Your task to perform on an android device: change the clock display to show seconds Image 0: 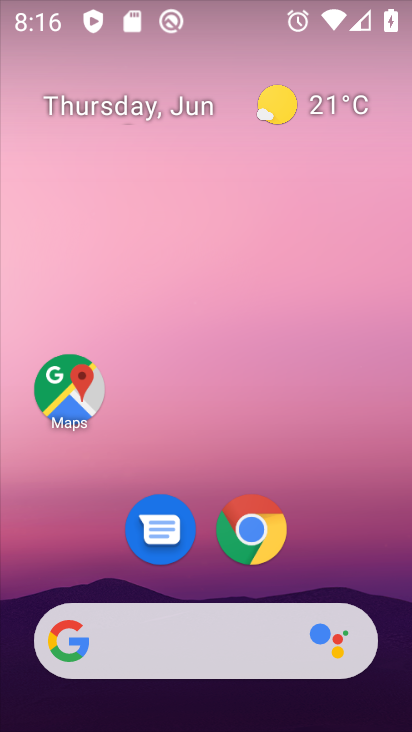
Step 0: click (332, 532)
Your task to perform on an android device: change the clock display to show seconds Image 1: 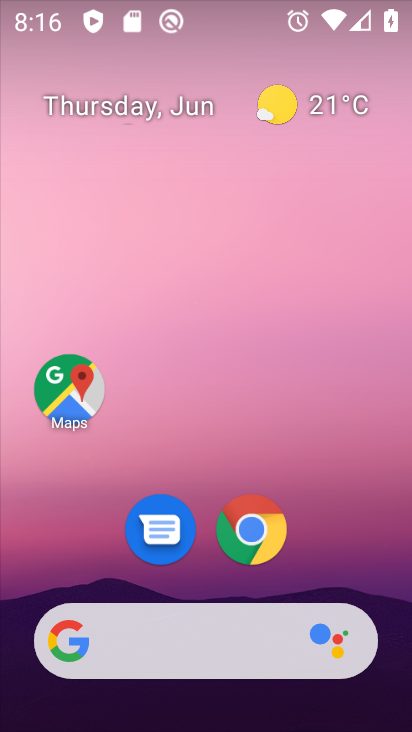
Step 1: drag from (398, 725) to (390, 241)
Your task to perform on an android device: change the clock display to show seconds Image 2: 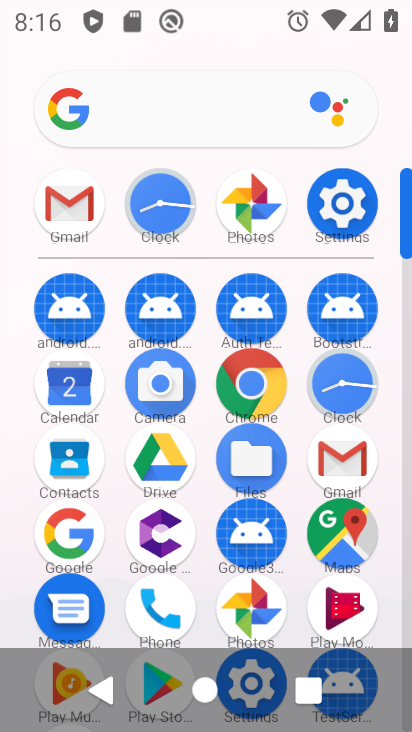
Step 2: click (356, 390)
Your task to perform on an android device: change the clock display to show seconds Image 3: 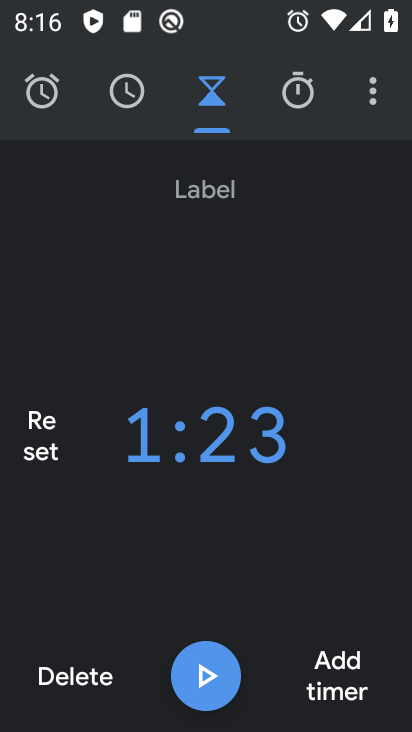
Step 3: click (371, 95)
Your task to perform on an android device: change the clock display to show seconds Image 4: 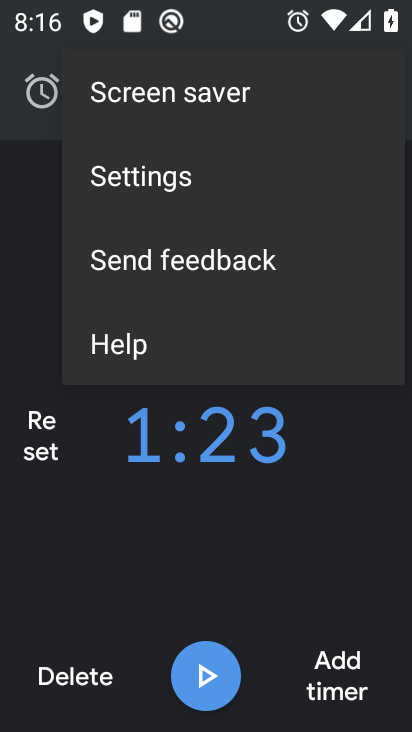
Step 4: click (143, 180)
Your task to perform on an android device: change the clock display to show seconds Image 5: 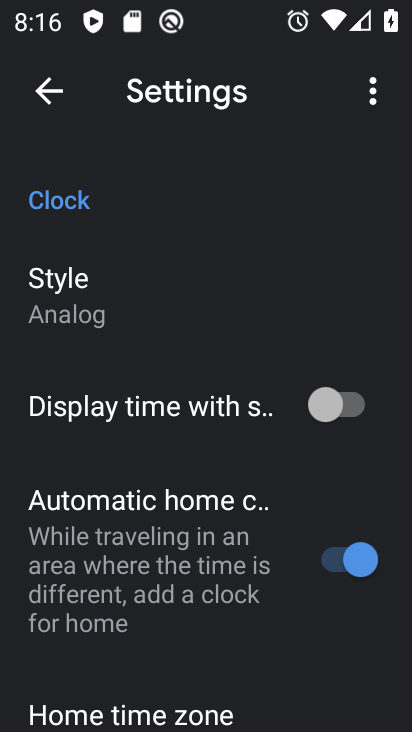
Step 5: click (352, 405)
Your task to perform on an android device: change the clock display to show seconds Image 6: 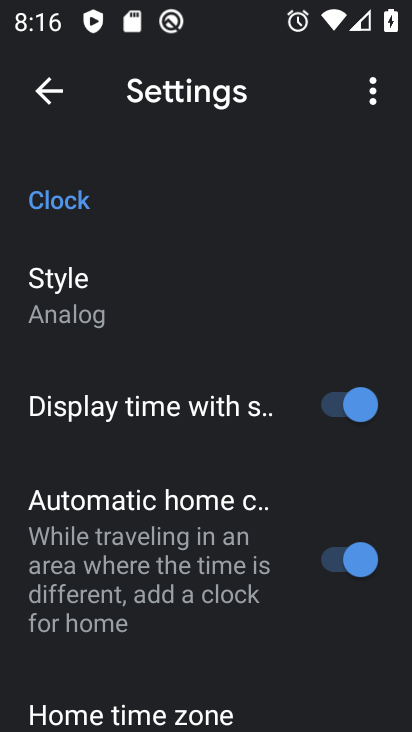
Step 6: task complete